Your task to perform on an android device: move an email to a new category in the gmail app Image 0: 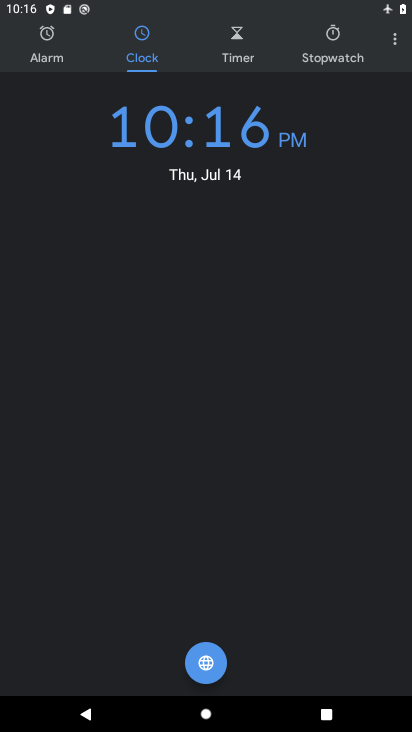
Step 0: press home button
Your task to perform on an android device: move an email to a new category in the gmail app Image 1: 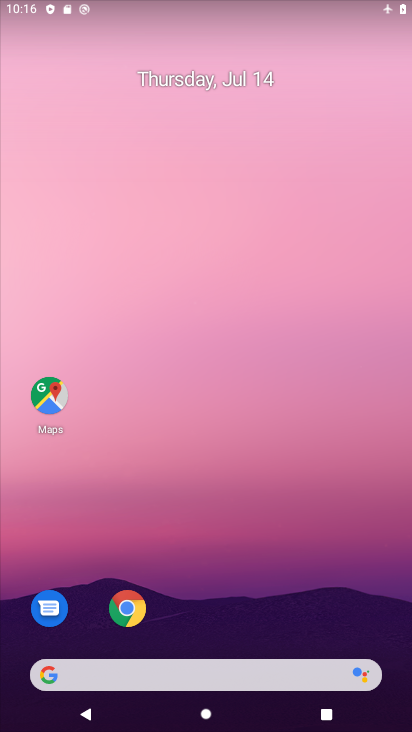
Step 1: drag from (210, 614) to (192, 130)
Your task to perform on an android device: move an email to a new category in the gmail app Image 2: 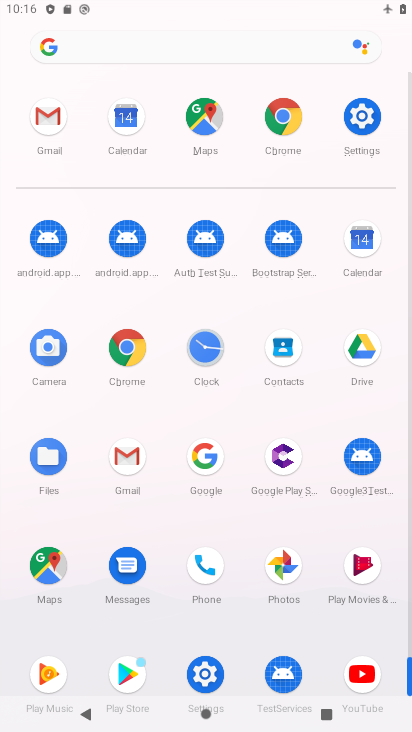
Step 2: click (141, 467)
Your task to perform on an android device: move an email to a new category in the gmail app Image 3: 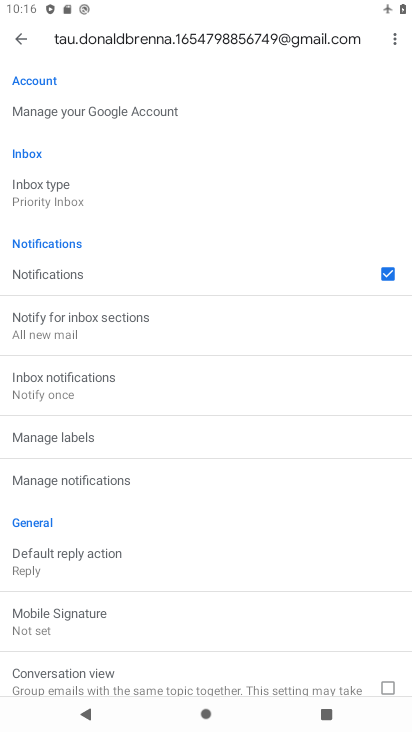
Step 3: click (31, 37)
Your task to perform on an android device: move an email to a new category in the gmail app Image 4: 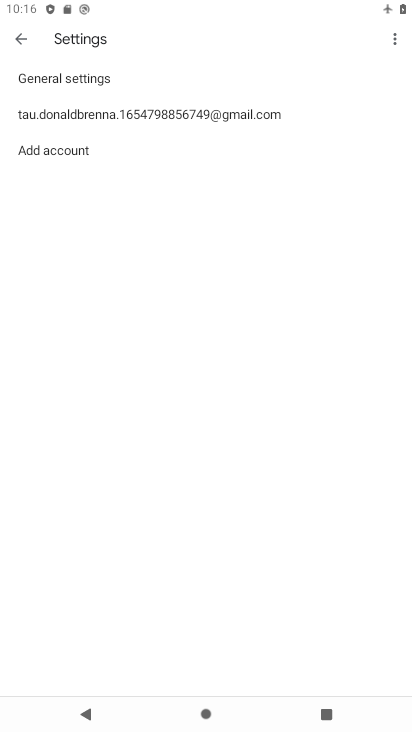
Step 4: click (19, 42)
Your task to perform on an android device: move an email to a new category in the gmail app Image 5: 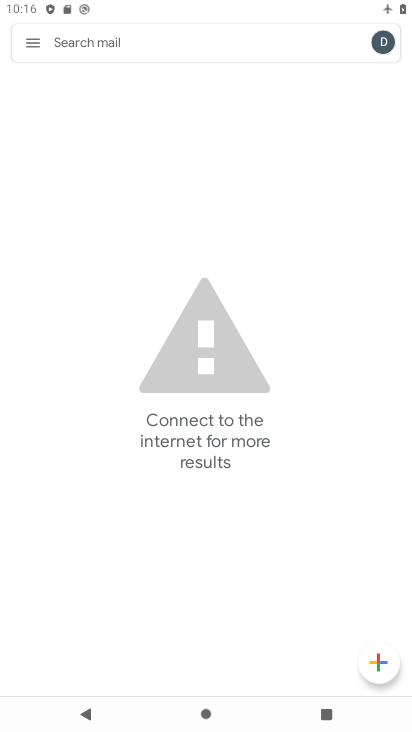
Step 5: task complete